Your task to perform on an android device: open app "WhatsApp Messenger" (install if not already installed) and go to login screen Image 0: 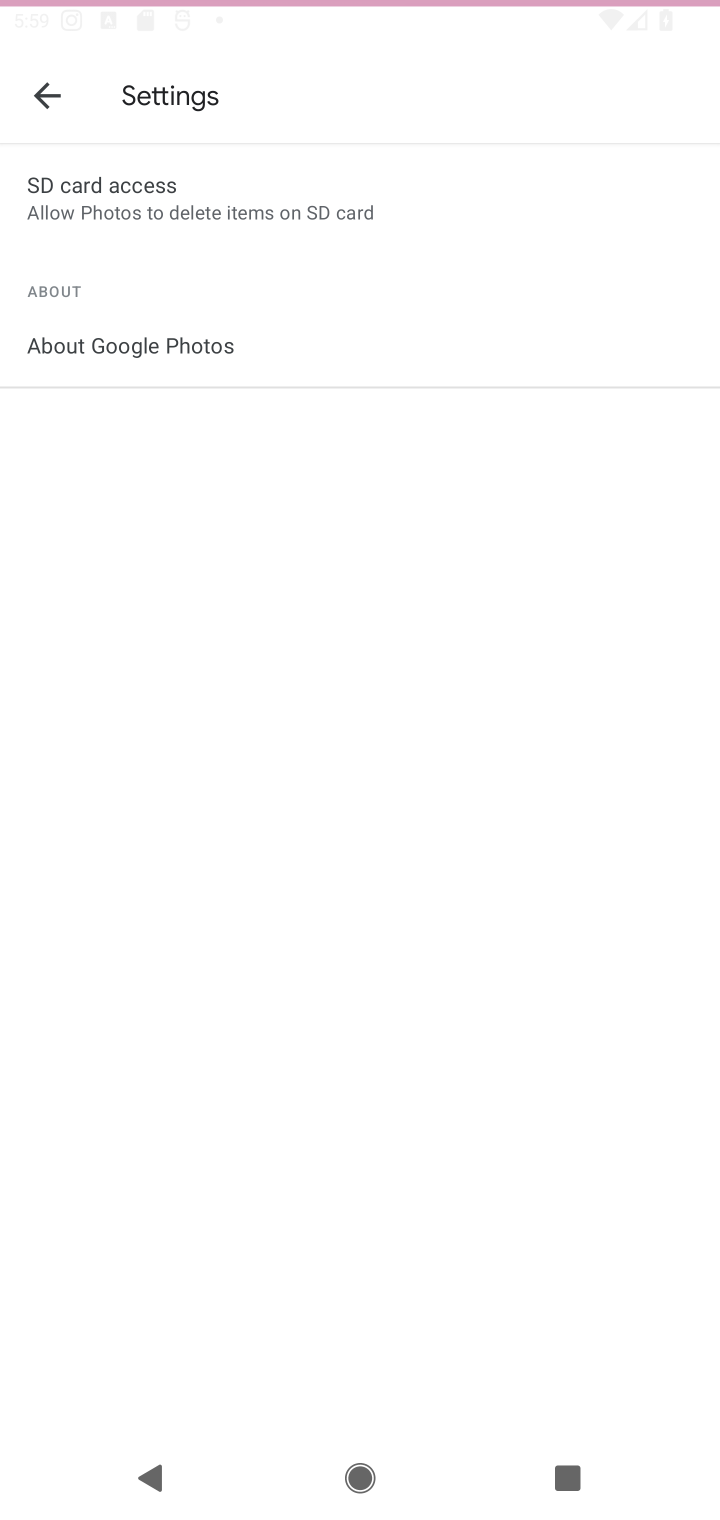
Step 0: click (572, 90)
Your task to perform on an android device: open app "WhatsApp Messenger" (install if not already installed) and go to login screen Image 1: 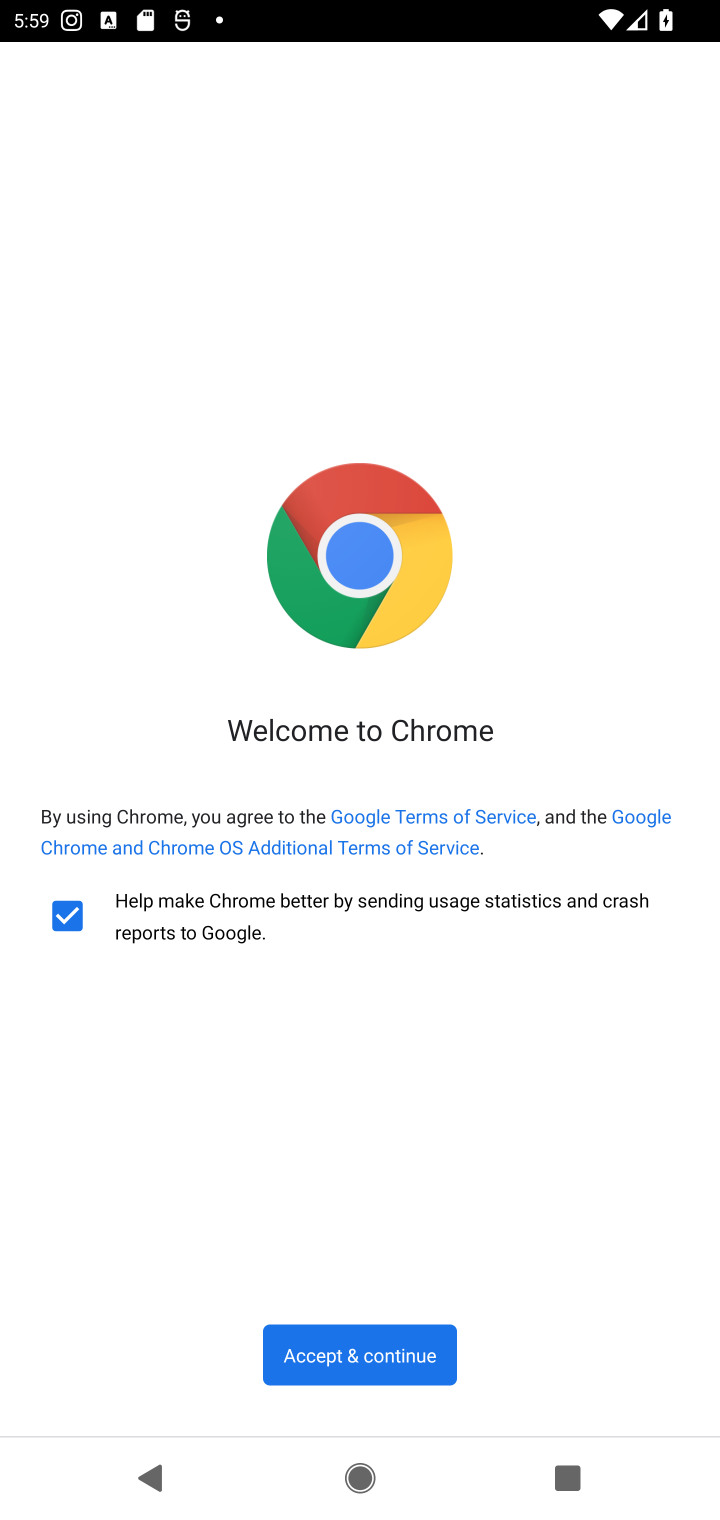
Step 1: press home button
Your task to perform on an android device: open app "WhatsApp Messenger" (install if not already installed) and go to login screen Image 2: 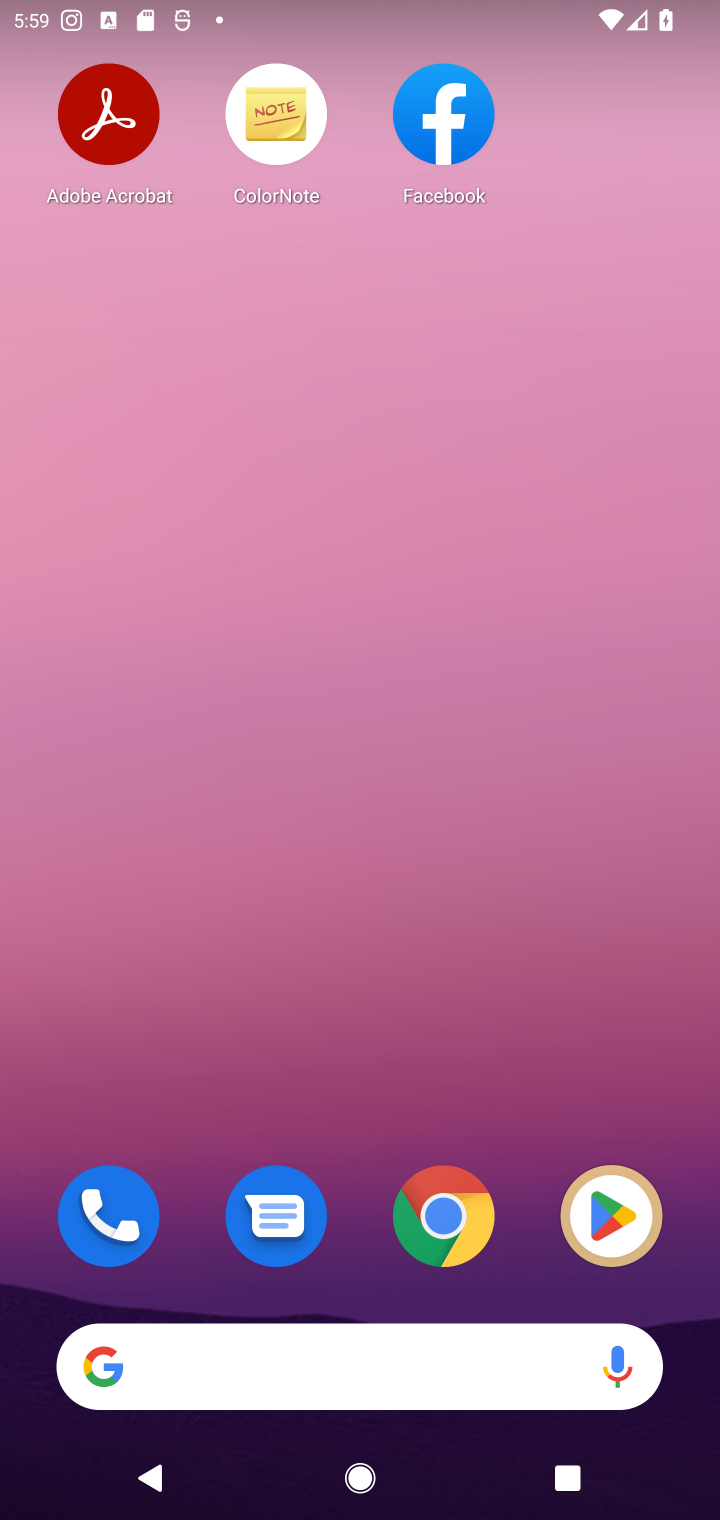
Step 2: click (592, 1211)
Your task to perform on an android device: open app "WhatsApp Messenger" (install if not already installed) and go to login screen Image 3: 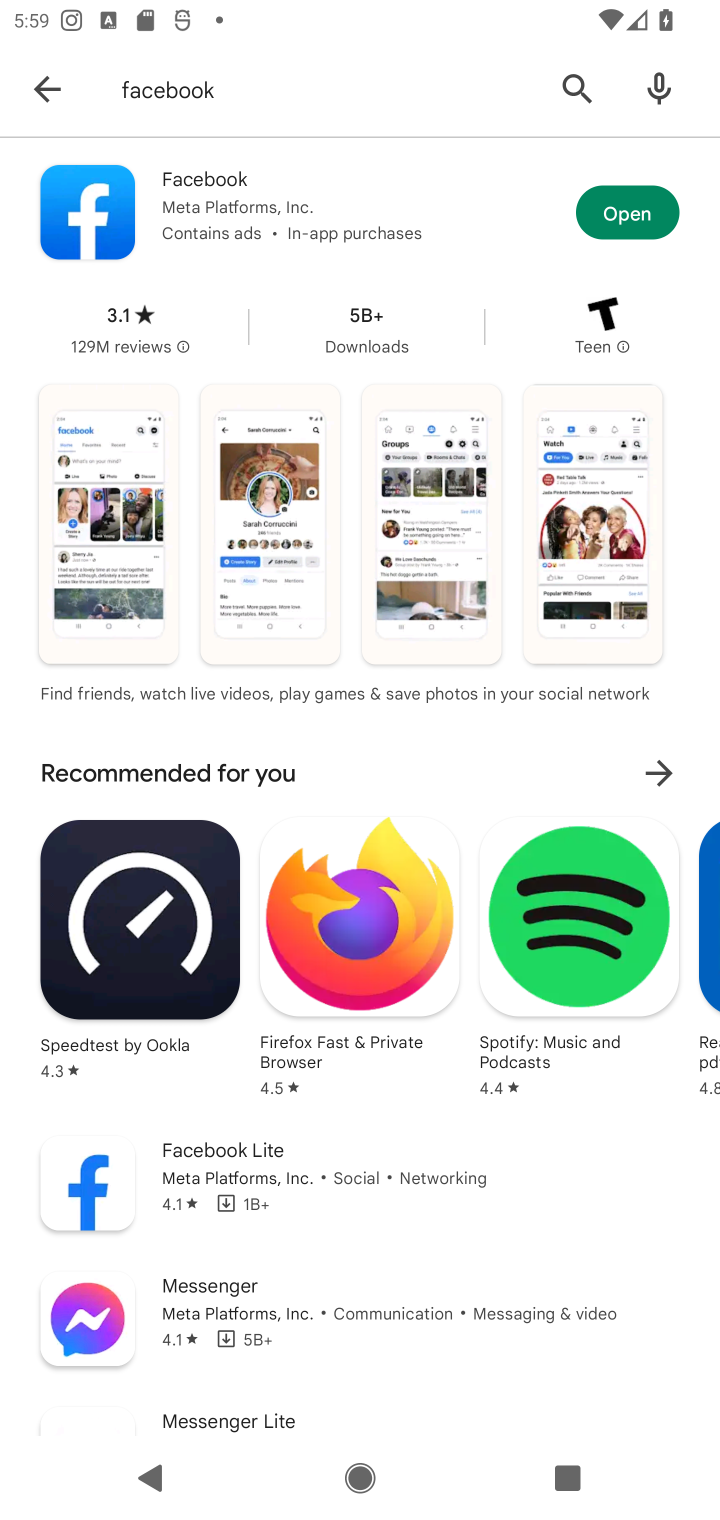
Step 3: click (553, 91)
Your task to perform on an android device: open app "WhatsApp Messenger" (install if not already installed) and go to login screen Image 4: 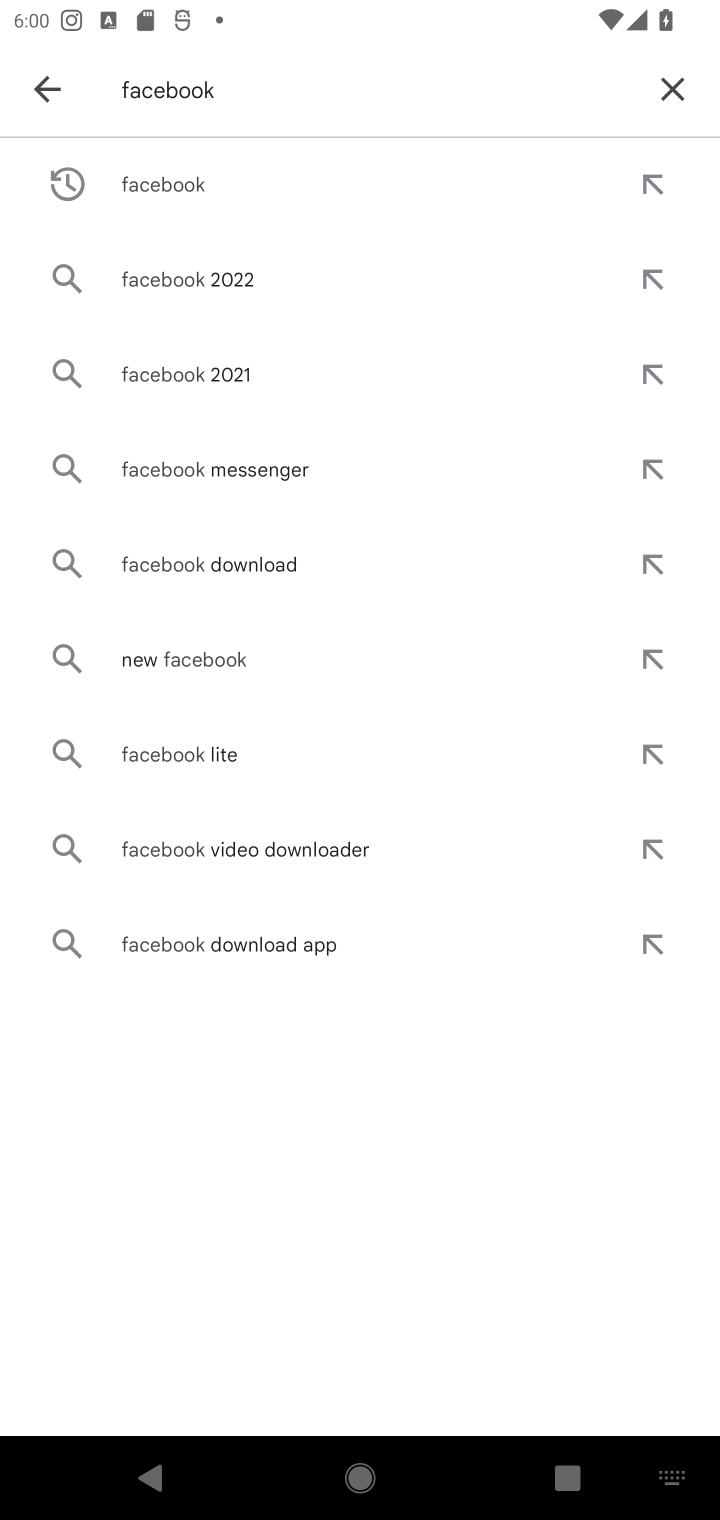
Step 4: click (670, 71)
Your task to perform on an android device: open app "WhatsApp Messenger" (install if not already installed) and go to login screen Image 5: 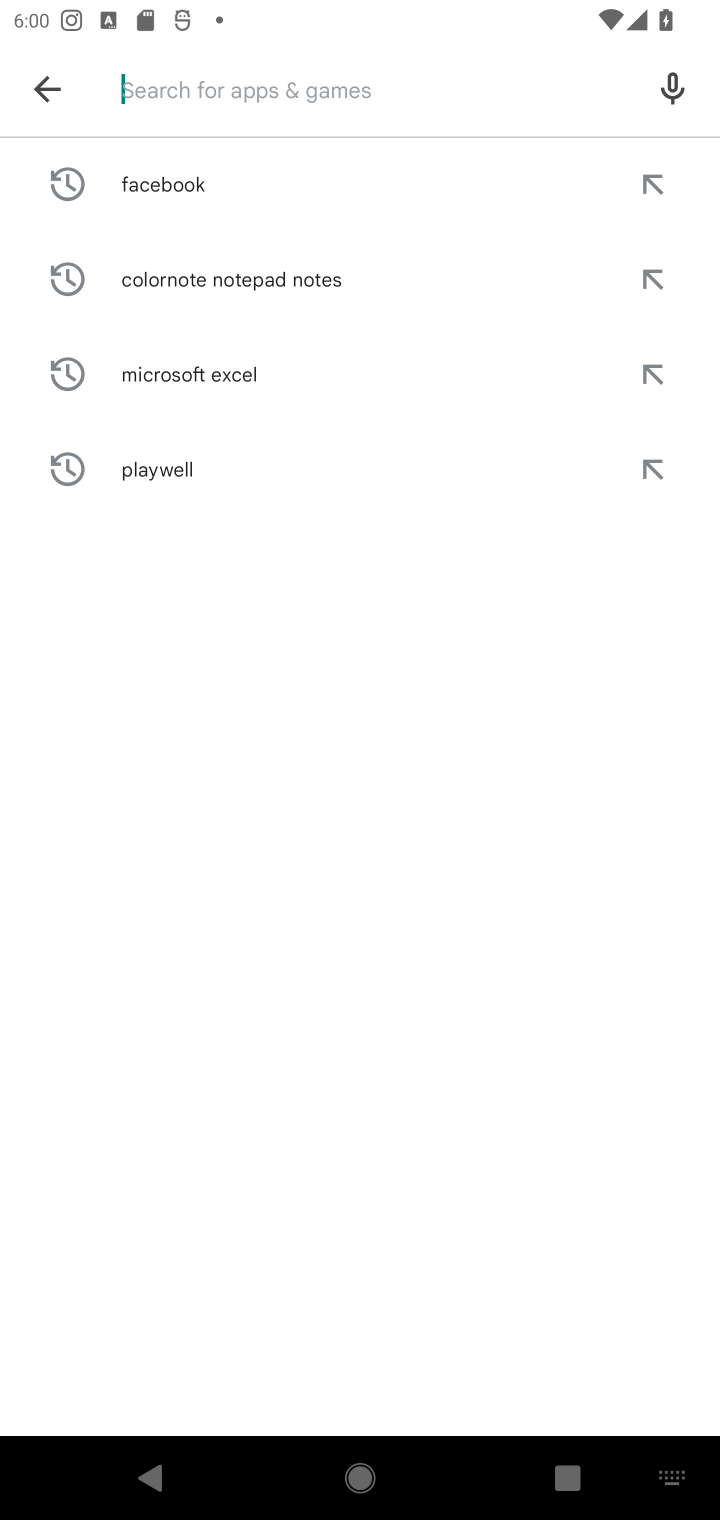
Step 5: type "WhatsApp Messenge"
Your task to perform on an android device: open app "WhatsApp Messenger" (install if not already installed) and go to login screen Image 6: 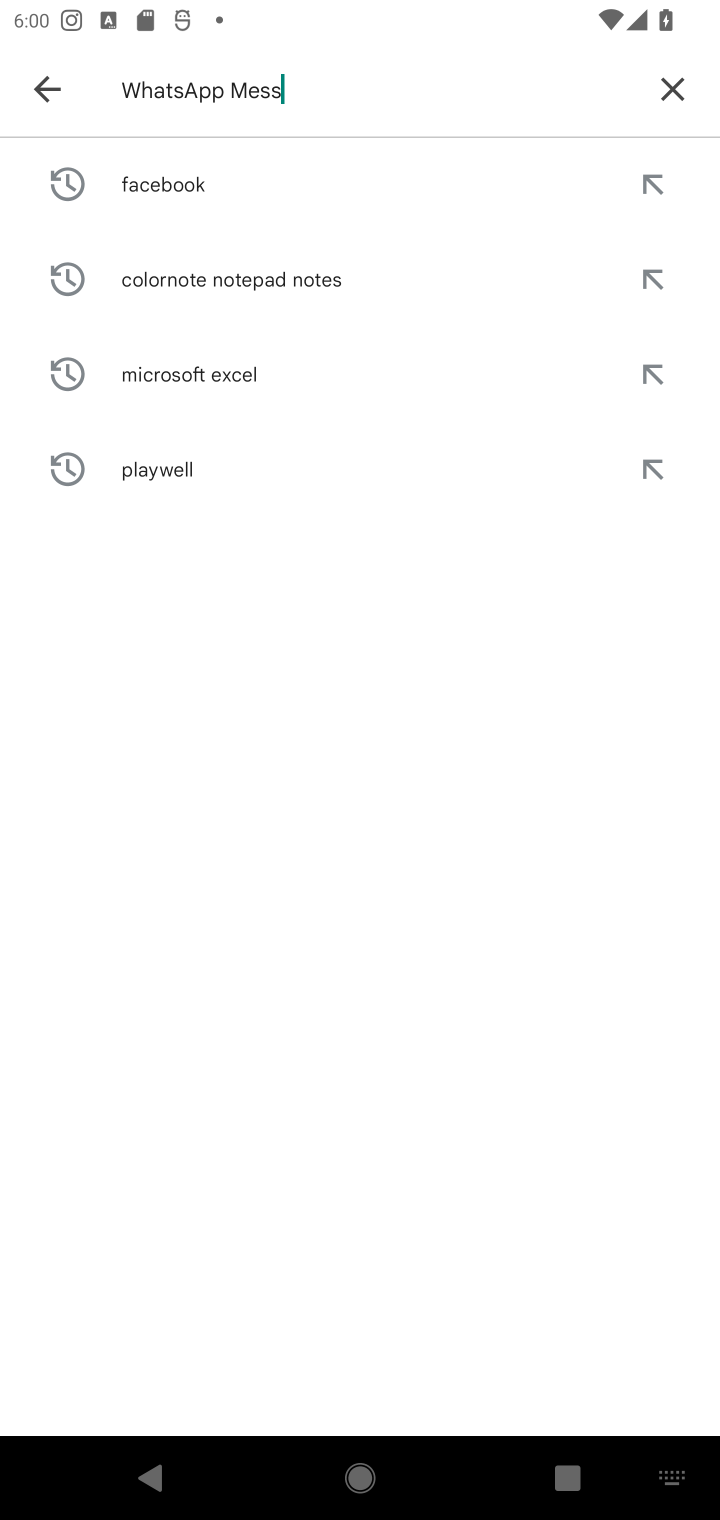
Step 6: type ""
Your task to perform on an android device: open app "WhatsApp Messenger" (install if not already installed) and go to login screen Image 7: 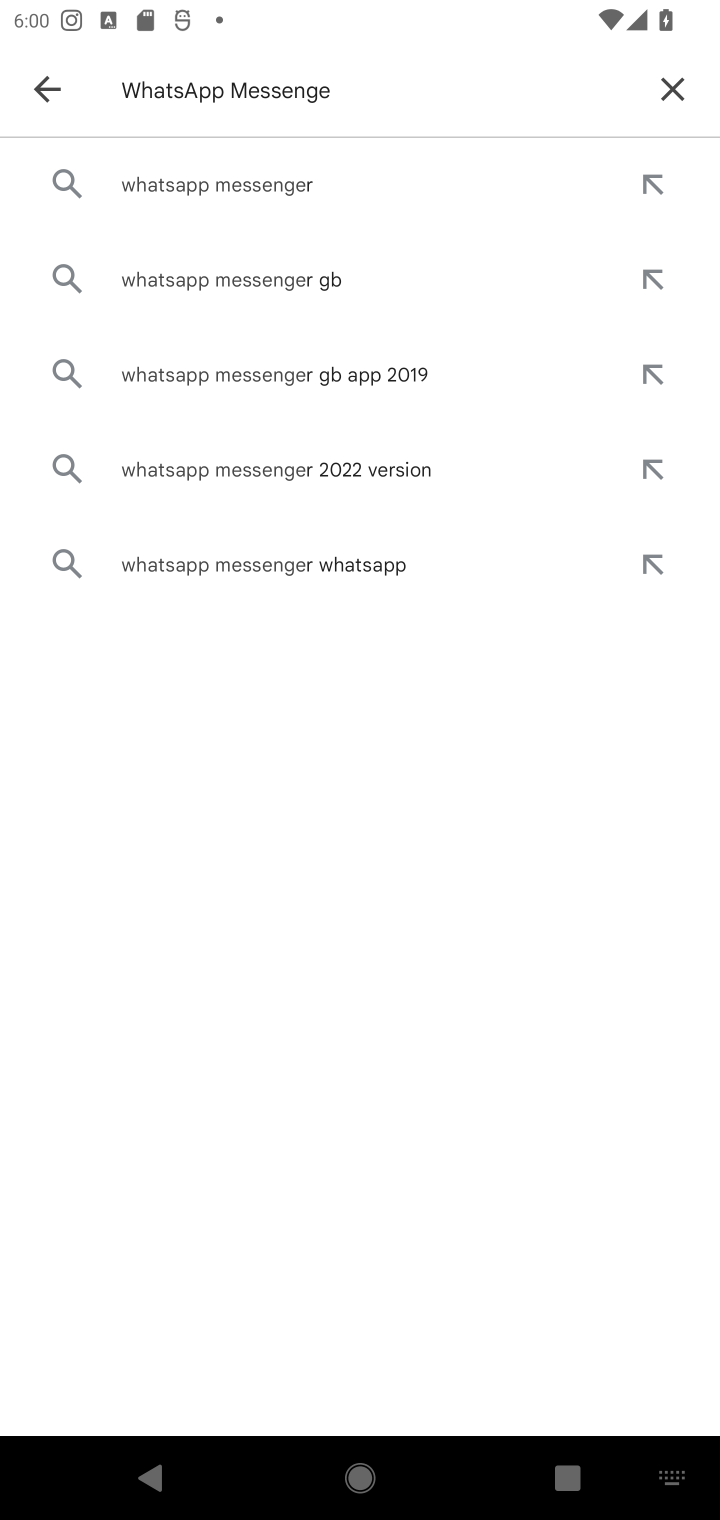
Step 7: click (308, 185)
Your task to perform on an android device: open app "WhatsApp Messenger" (install if not already installed) and go to login screen Image 8: 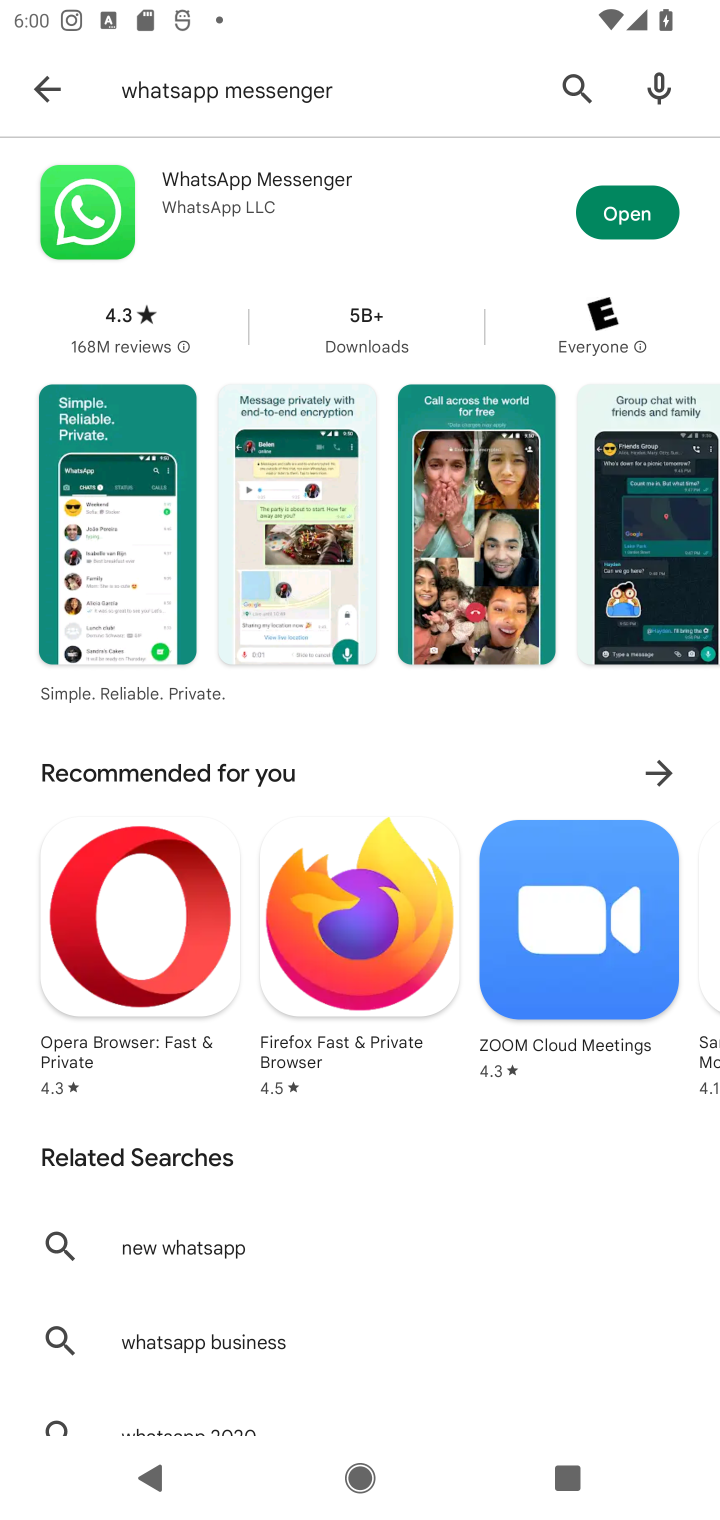
Step 8: click (650, 214)
Your task to perform on an android device: open app "WhatsApp Messenger" (install if not already installed) and go to login screen Image 9: 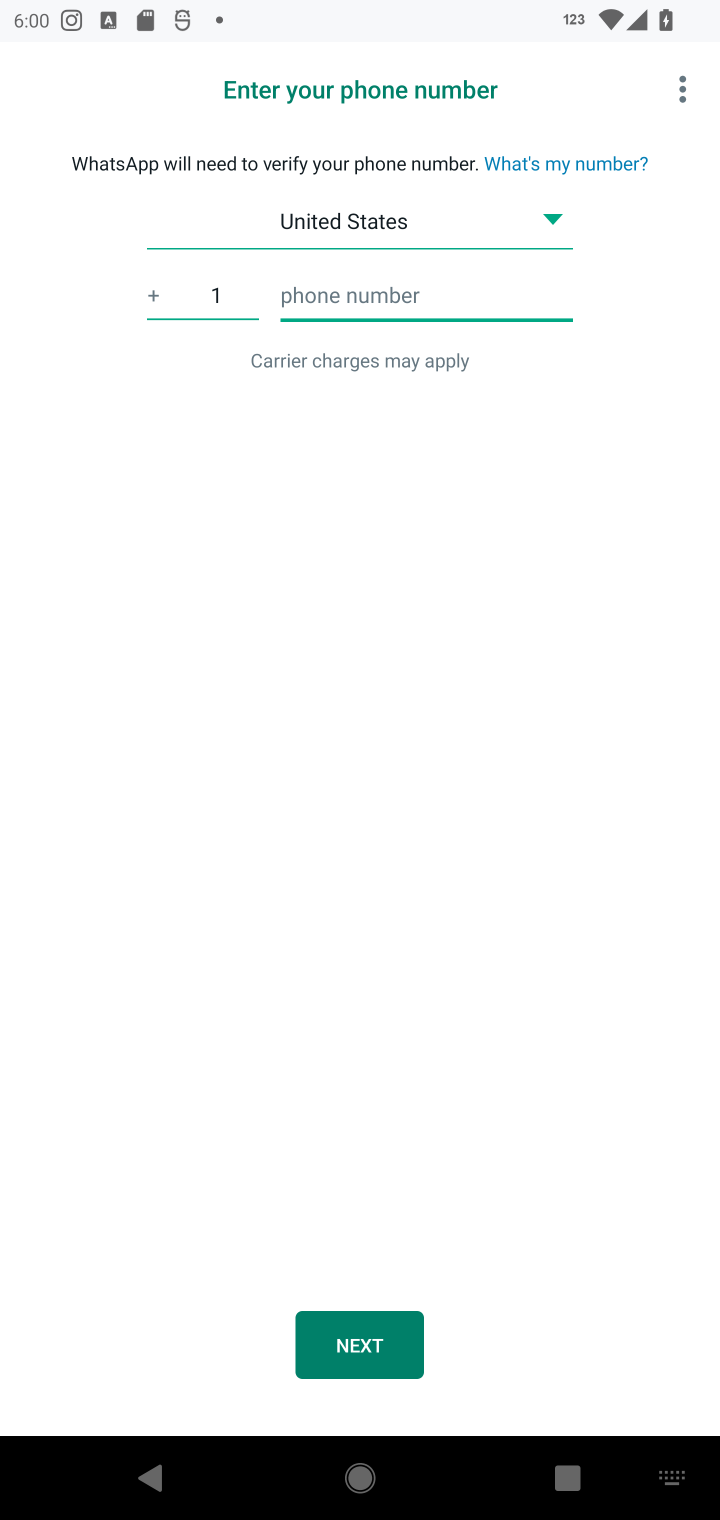
Step 9: task complete